Your task to perform on an android device: delete browsing data in the chrome app Image 0: 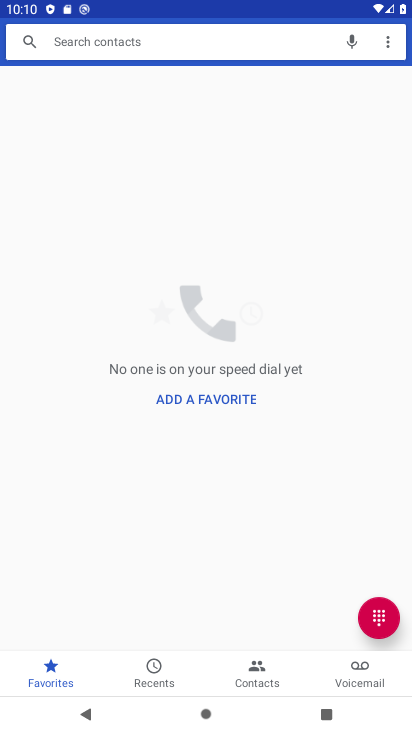
Step 0: press home button
Your task to perform on an android device: delete browsing data in the chrome app Image 1: 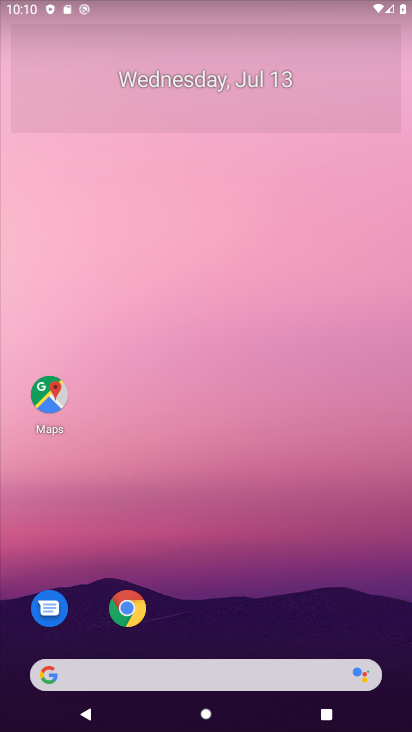
Step 1: drag from (293, 596) to (319, 108)
Your task to perform on an android device: delete browsing data in the chrome app Image 2: 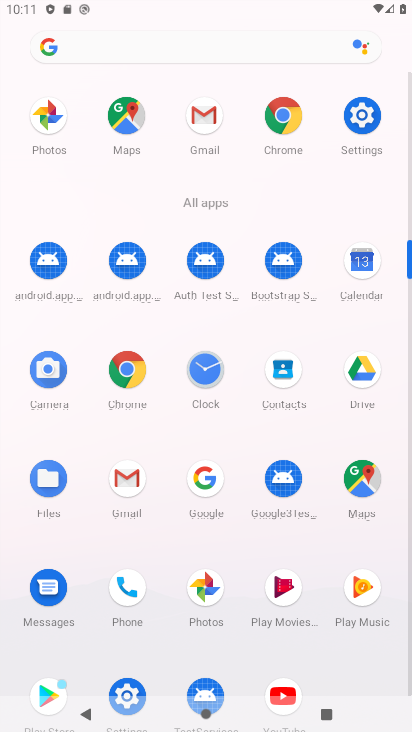
Step 2: click (283, 120)
Your task to perform on an android device: delete browsing data in the chrome app Image 3: 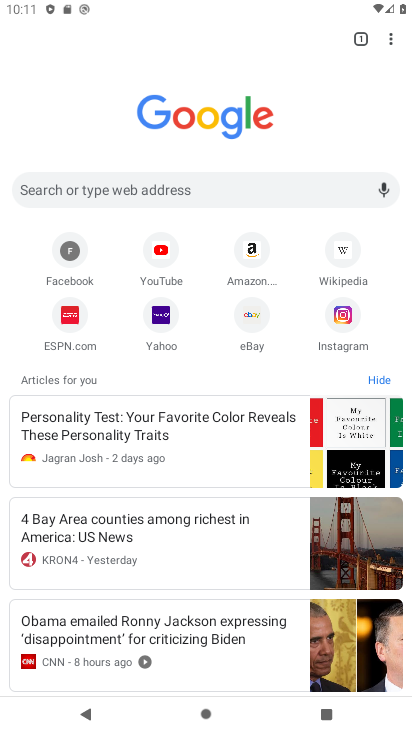
Step 3: drag from (390, 37) to (272, 329)
Your task to perform on an android device: delete browsing data in the chrome app Image 4: 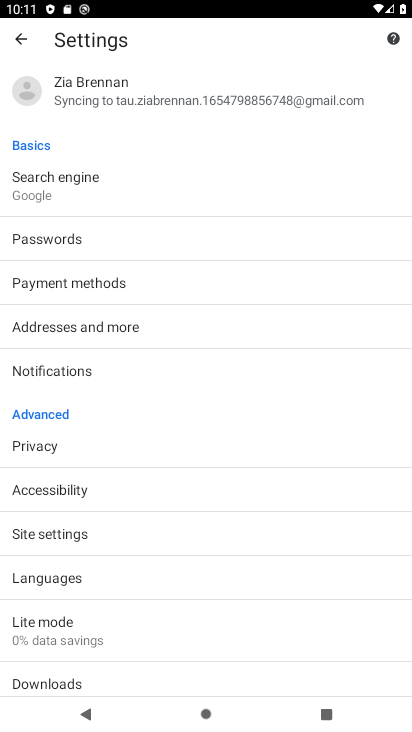
Step 4: click (35, 451)
Your task to perform on an android device: delete browsing data in the chrome app Image 5: 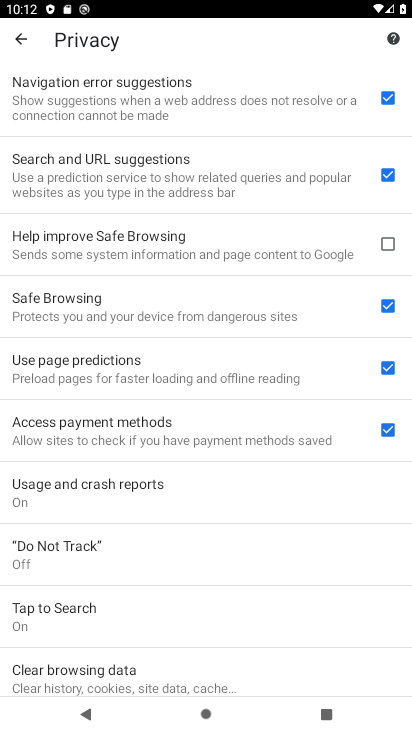
Step 5: click (49, 665)
Your task to perform on an android device: delete browsing data in the chrome app Image 6: 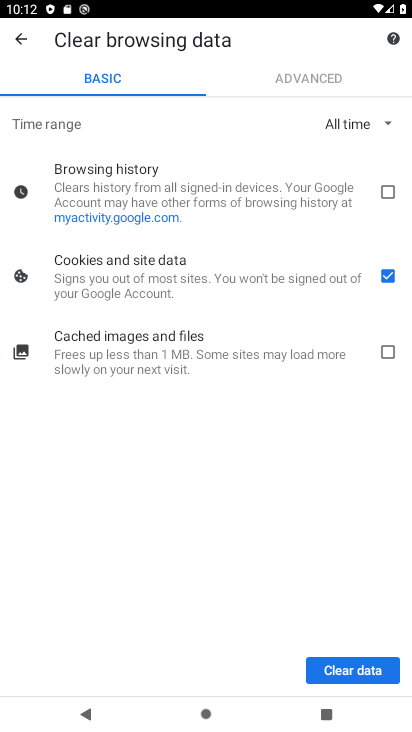
Step 6: click (387, 191)
Your task to perform on an android device: delete browsing data in the chrome app Image 7: 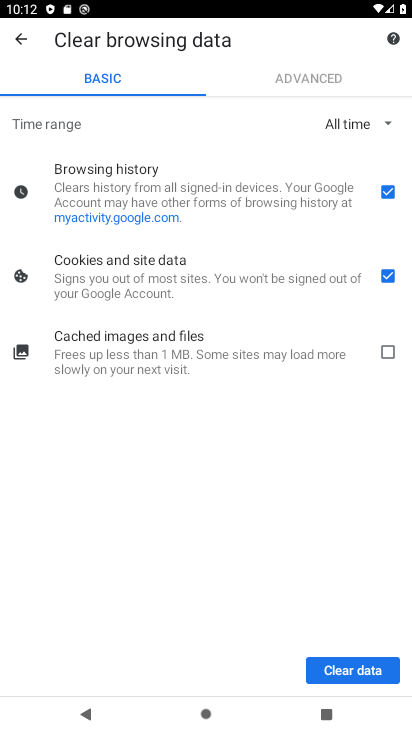
Step 7: click (388, 277)
Your task to perform on an android device: delete browsing data in the chrome app Image 8: 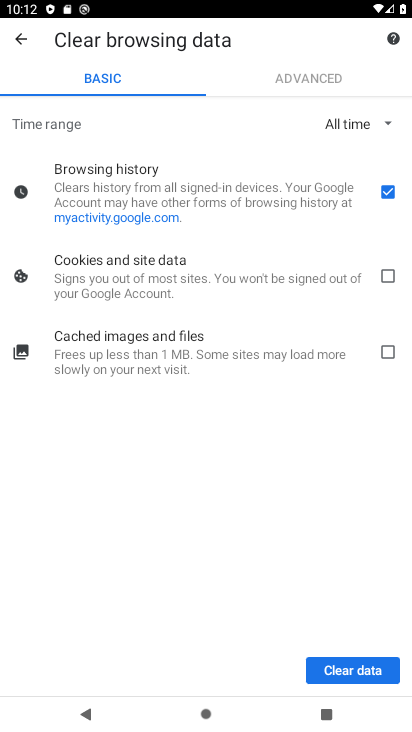
Step 8: click (380, 676)
Your task to perform on an android device: delete browsing data in the chrome app Image 9: 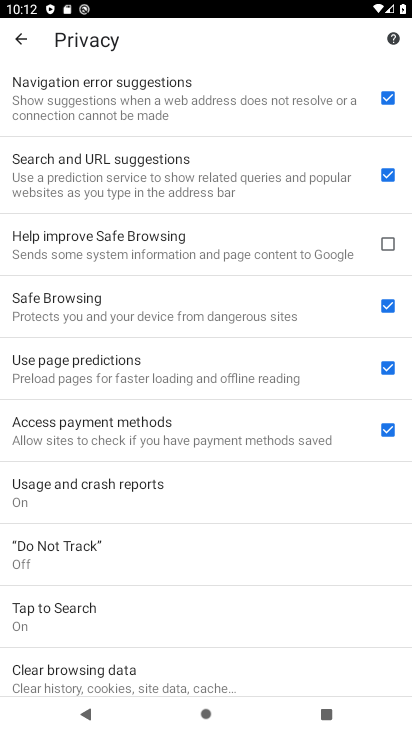
Step 9: task complete